Your task to perform on an android device: toggle wifi Image 0: 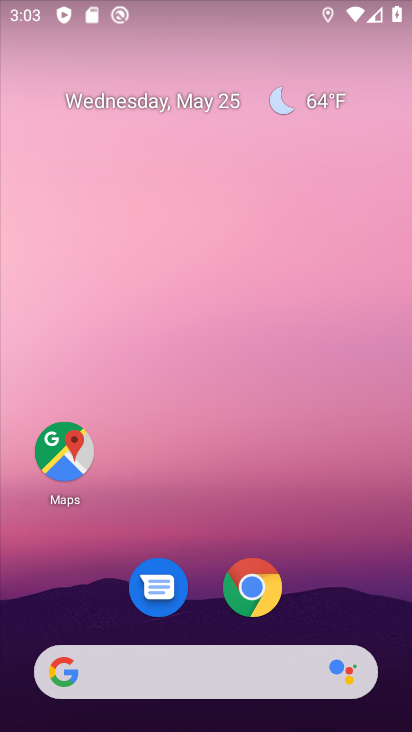
Step 0: drag from (361, 619) to (273, 258)
Your task to perform on an android device: toggle wifi Image 1: 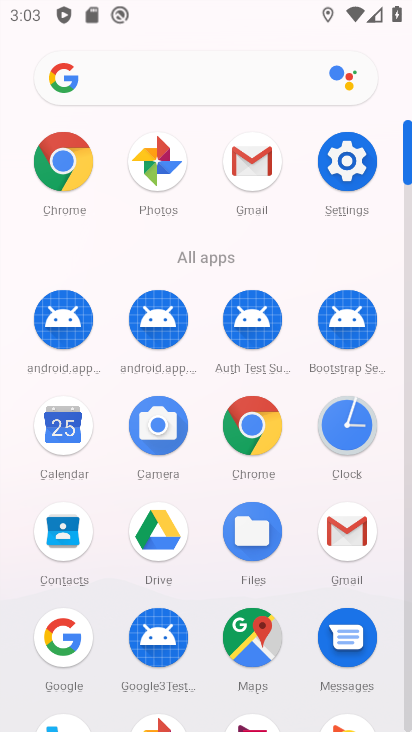
Step 1: click (361, 164)
Your task to perform on an android device: toggle wifi Image 2: 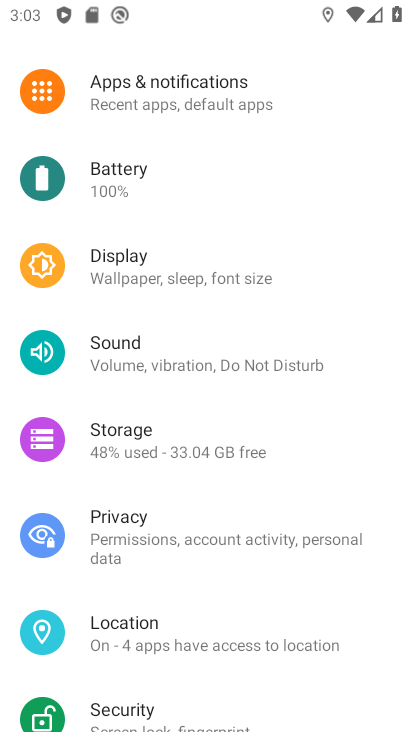
Step 2: drag from (246, 143) to (243, 404)
Your task to perform on an android device: toggle wifi Image 3: 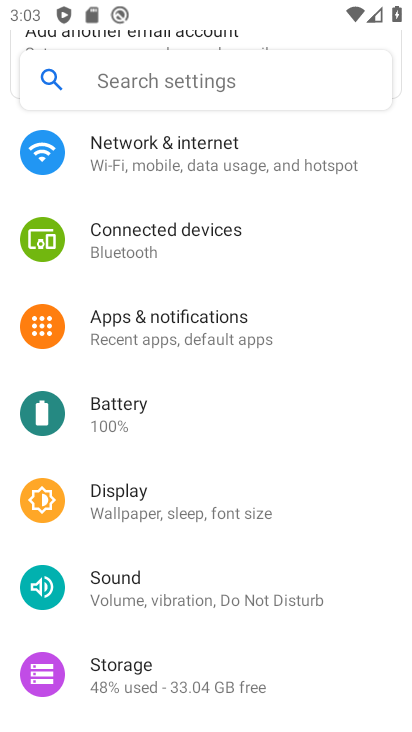
Step 3: click (239, 155)
Your task to perform on an android device: toggle wifi Image 4: 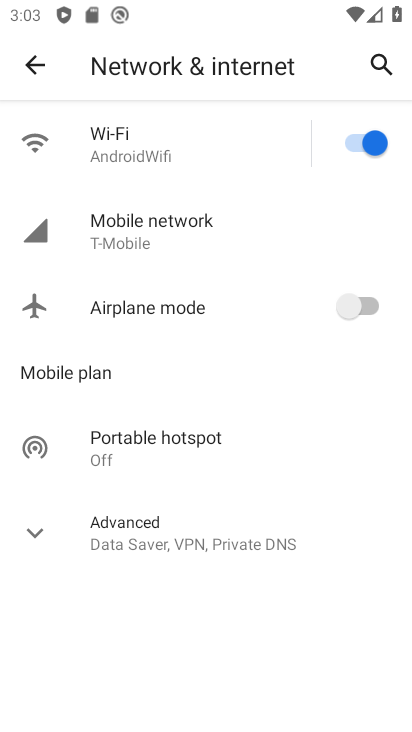
Step 4: click (349, 149)
Your task to perform on an android device: toggle wifi Image 5: 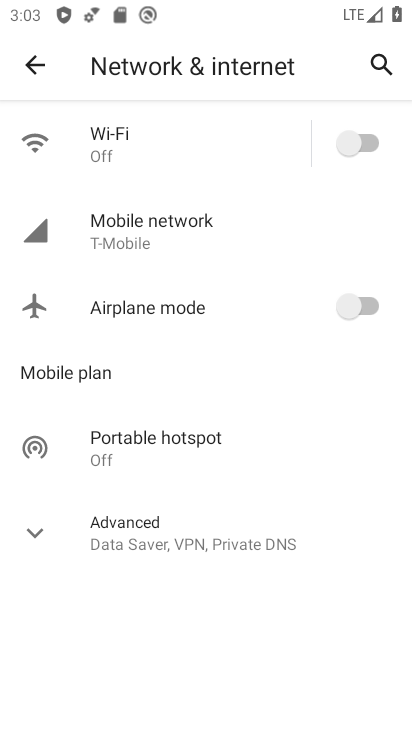
Step 5: task complete